Your task to perform on an android device: Clear the shopping cart on amazon. Add razer blackwidow to the cart on amazon Image 0: 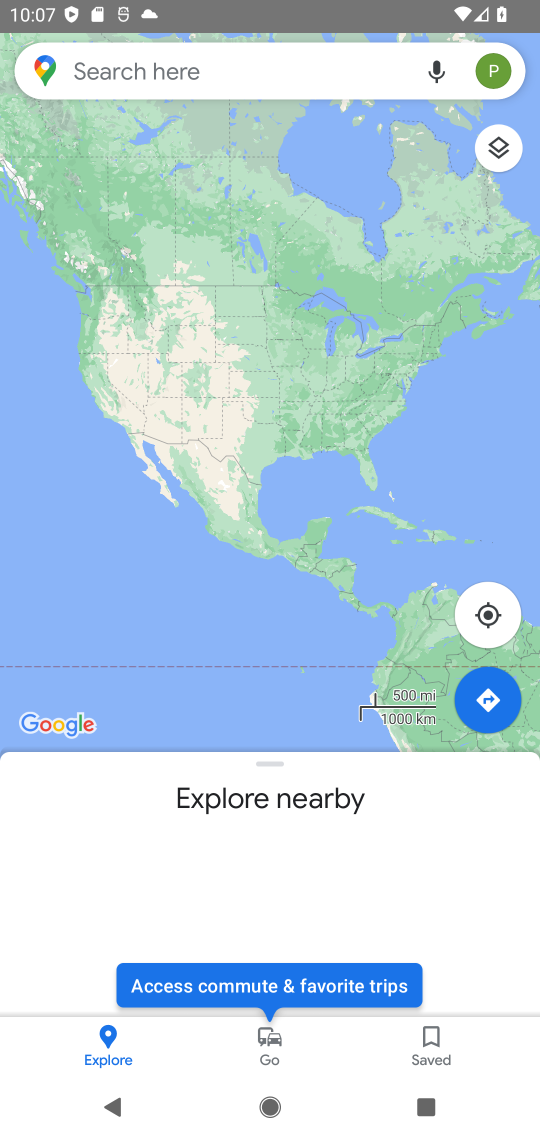
Step 0: press home button
Your task to perform on an android device: Clear the shopping cart on amazon. Add razer blackwidow to the cart on amazon Image 1: 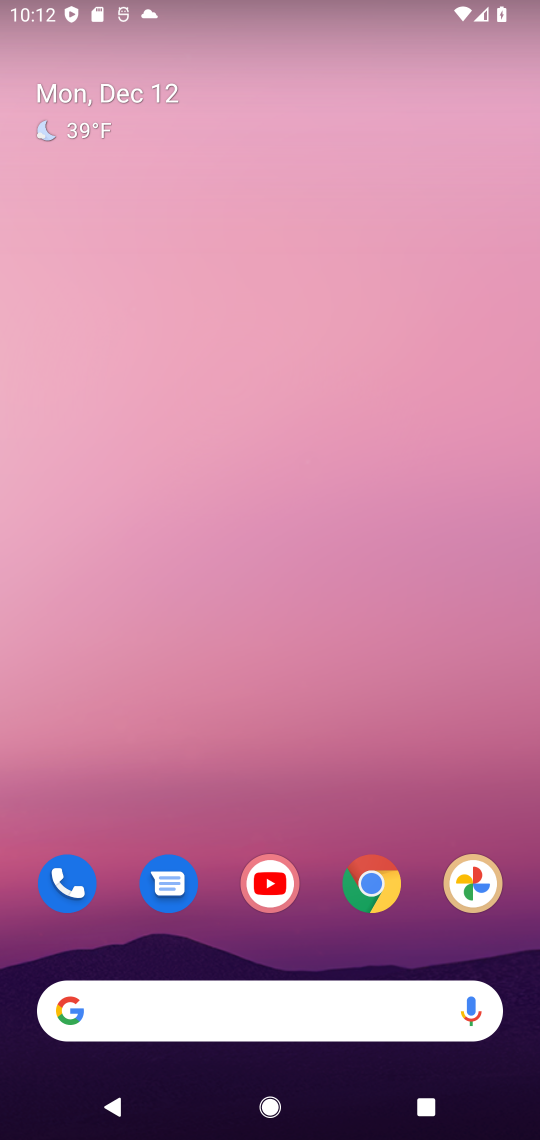
Step 1: click (214, 1002)
Your task to perform on an android device: Clear the shopping cart on amazon. Add razer blackwidow to the cart on amazon Image 2: 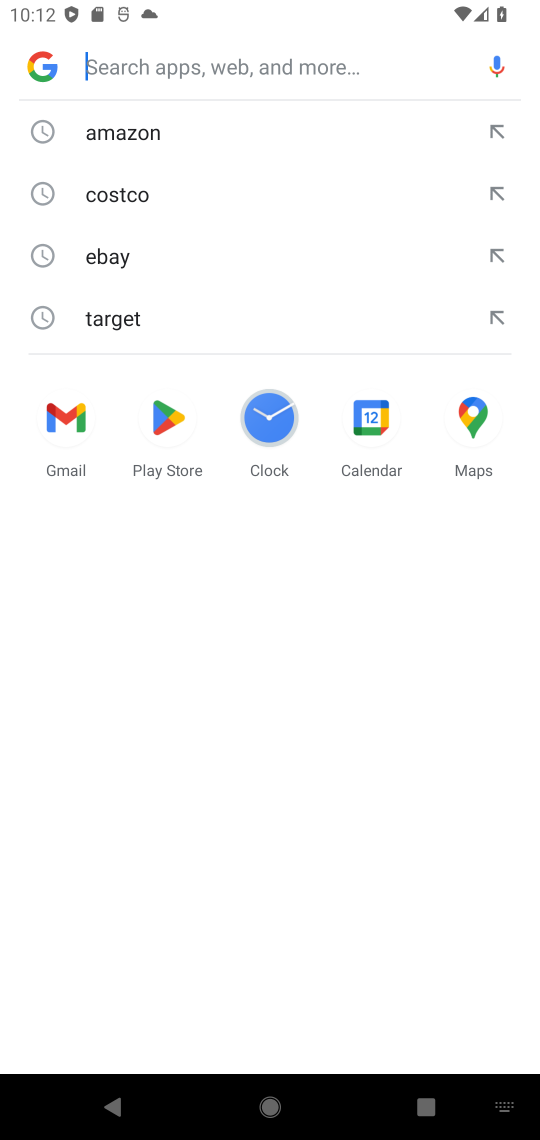
Step 2: click (161, 122)
Your task to perform on an android device: Clear the shopping cart on amazon. Add razer blackwidow to the cart on amazon Image 3: 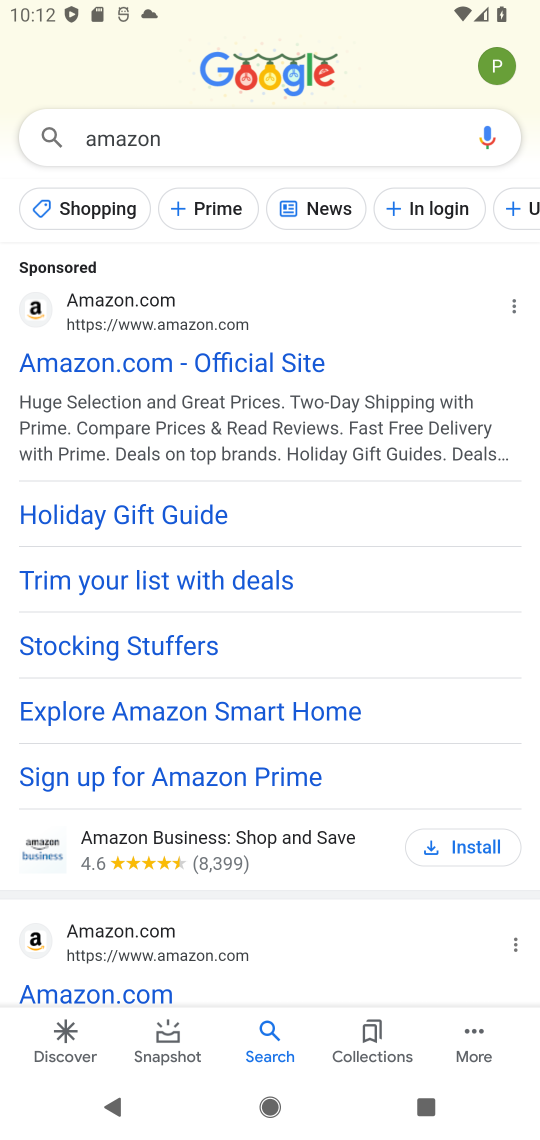
Step 3: click (74, 357)
Your task to perform on an android device: Clear the shopping cart on amazon. Add razer blackwidow to the cart on amazon Image 4: 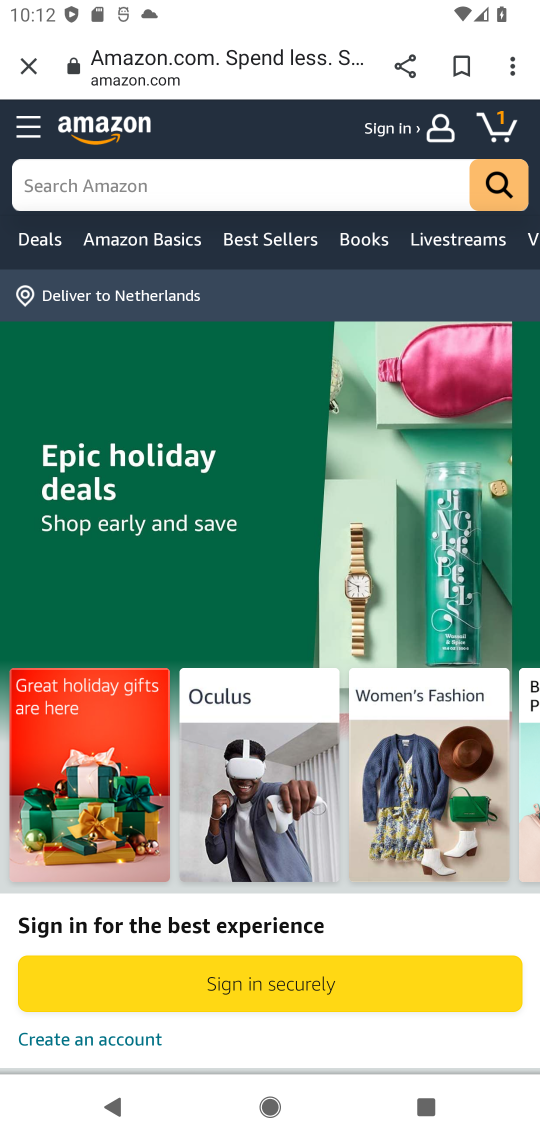
Step 4: click (501, 148)
Your task to perform on an android device: Clear the shopping cart on amazon. Add razer blackwidow to the cart on amazon Image 5: 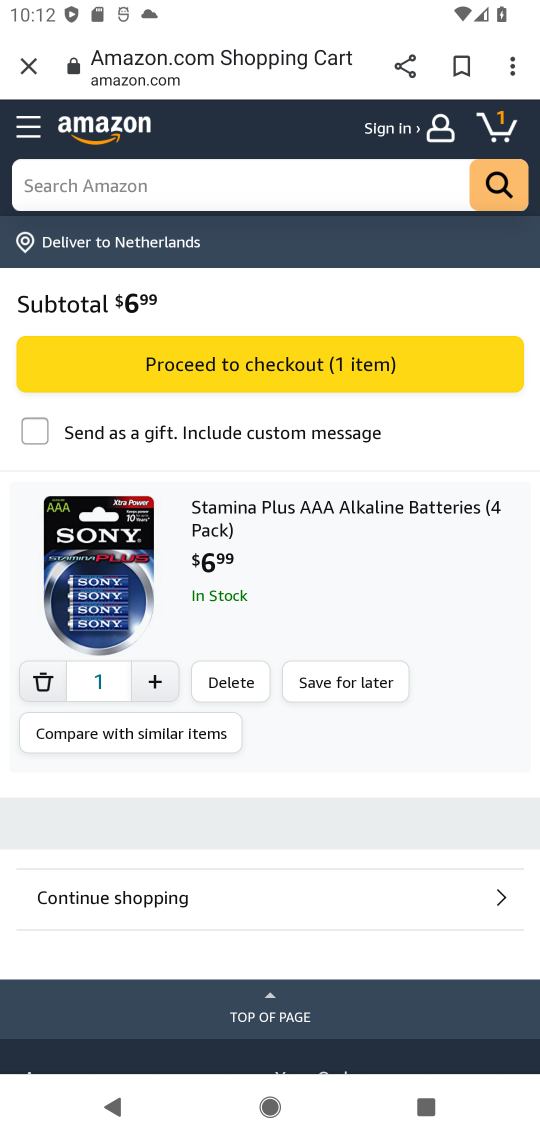
Step 5: click (225, 676)
Your task to perform on an android device: Clear the shopping cart on amazon. Add razer blackwidow to the cart on amazon Image 6: 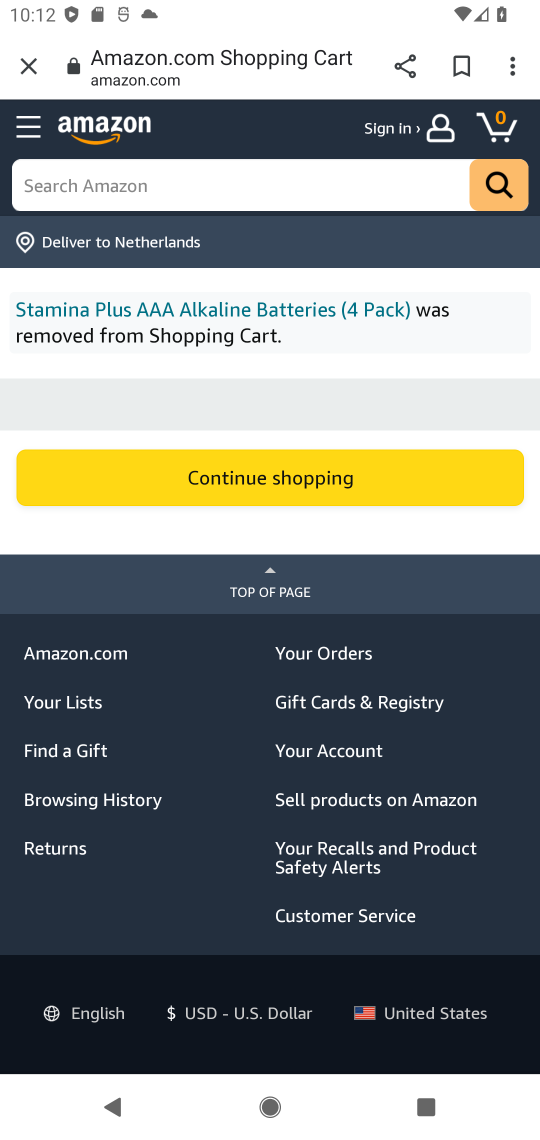
Step 6: click (279, 171)
Your task to perform on an android device: Clear the shopping cart on amazon. Add razer blackwidow to the cart on amazon Image 7: 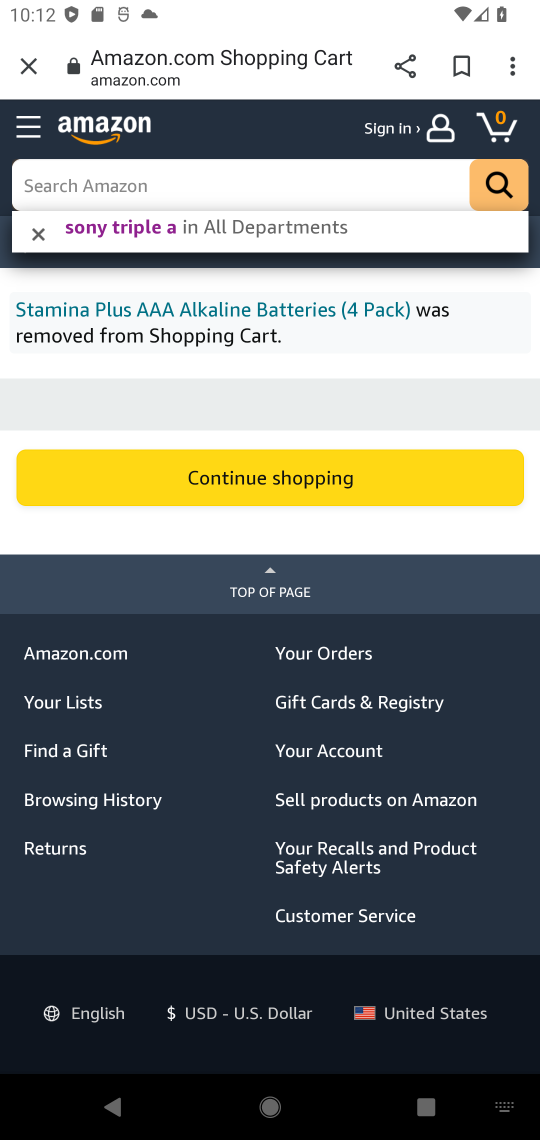
Step 7: type "razer blackwidow "
Your task to perform on an android device: Clear the shopping cart on amazon. Add razer blackwidow to the cart on amazon Image 8: 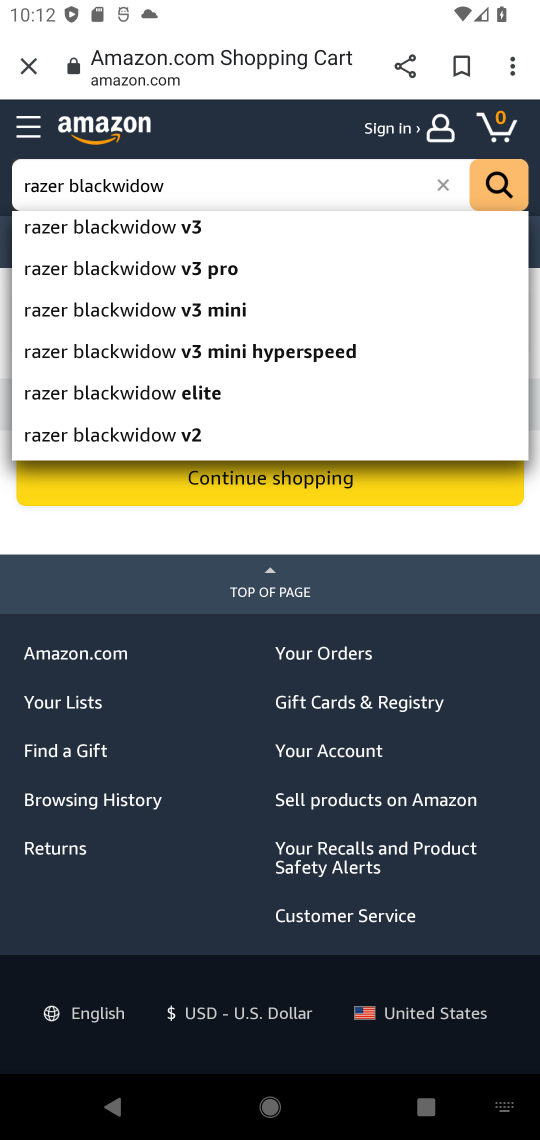
Step 8: click (495, 176)
Your task to perform on an android device: Clear the shopping cart on amazon. Add razer blackwidow to the cart on amazon Image 9: 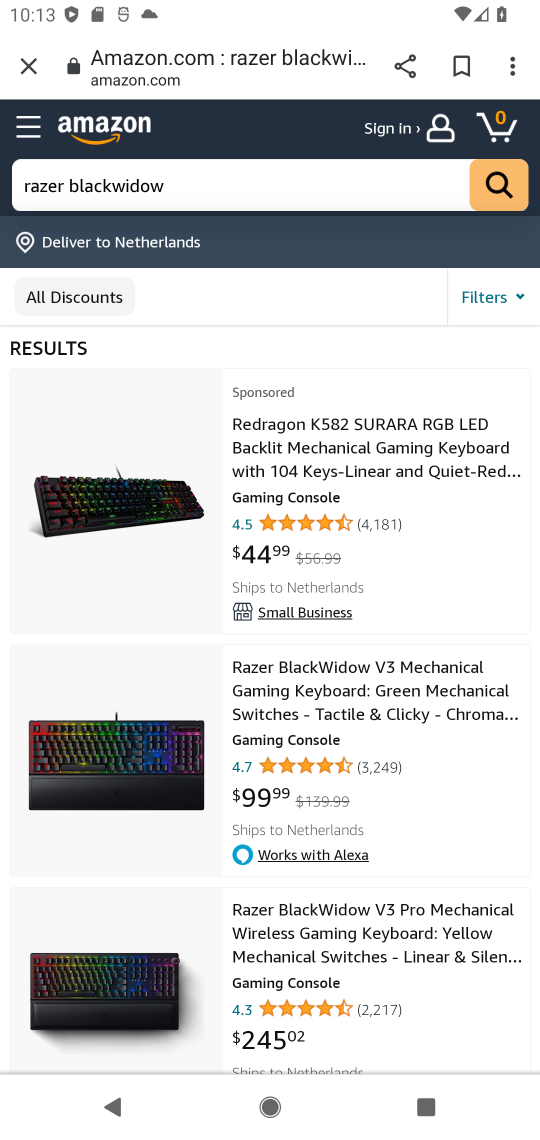
Step 9: click (262, 447)
Your task to perform on an android device: Clear the shopping cart on amazon. Add razer blackwidow to the cart on amazon Image 10: 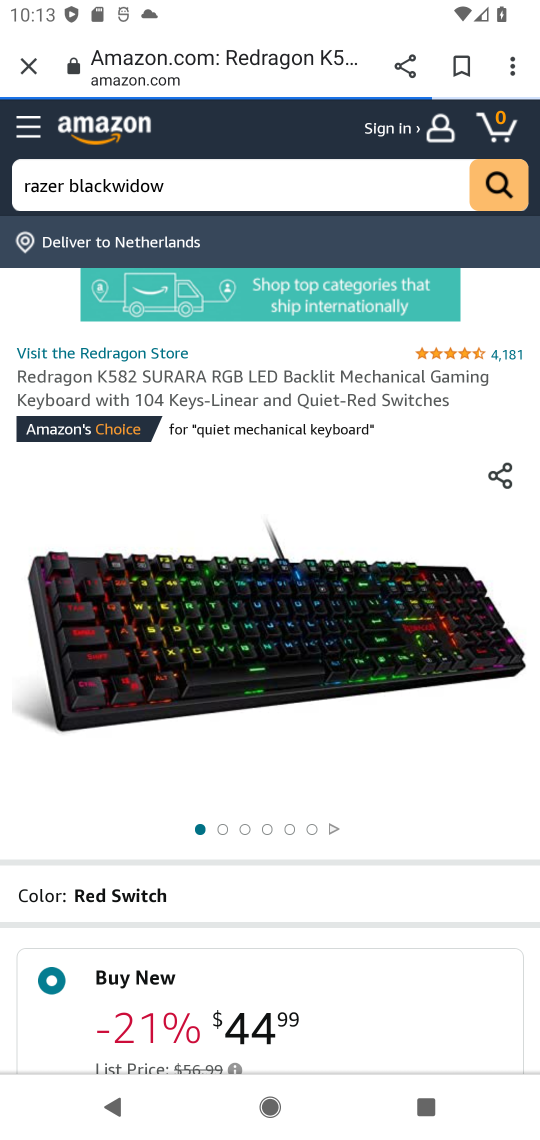
Step 10: click (253, 814)
Your task to perform on an android device: Clear the shopping cart on amazon. Add razer blackwidow to the cart on amazon Image 11: 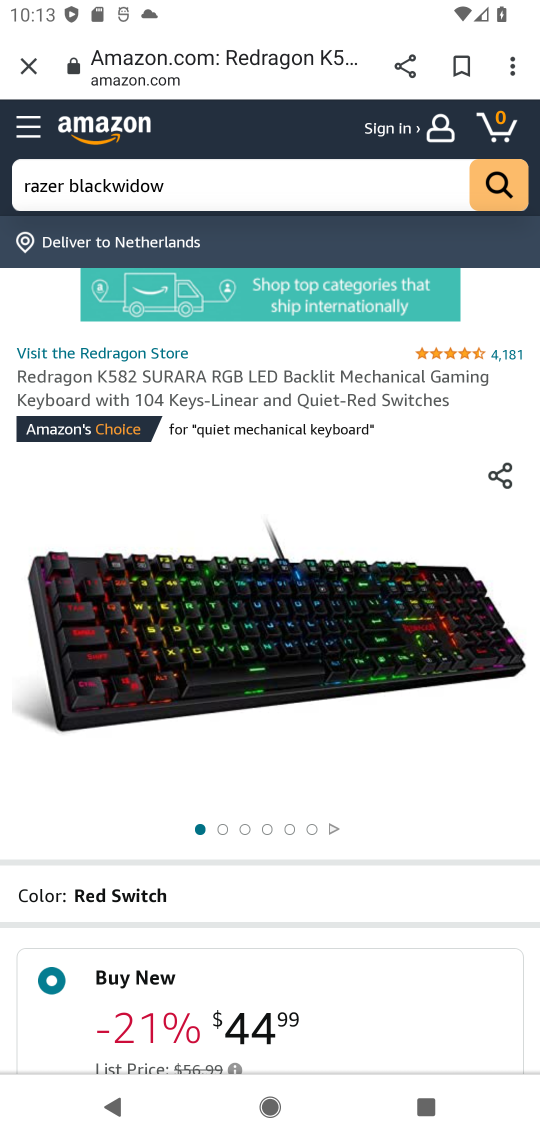
Step 11: drag from (189, 876) to (355, 519)
Your task to perform on an android device: Clear the shopping cart on amazon. Add razer blackwidow to the cart on amazon Image 12: 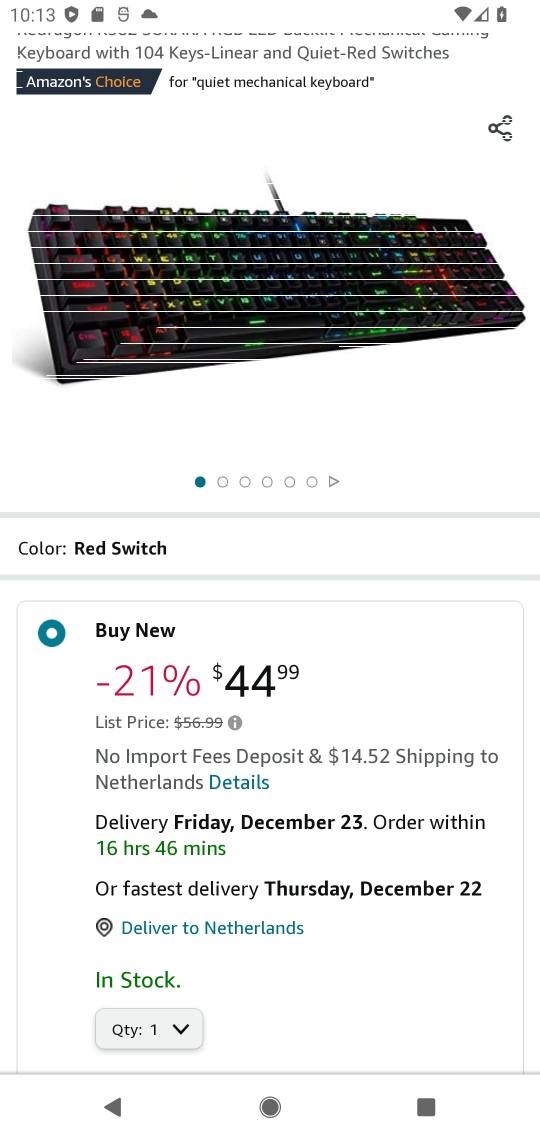
Step 12: drag from (260, 962) to (370, 547)
Your task to perform on an android device: Clear the shopping cart on amazon. Add razer blackwidow to the cart on amazon Image 13: 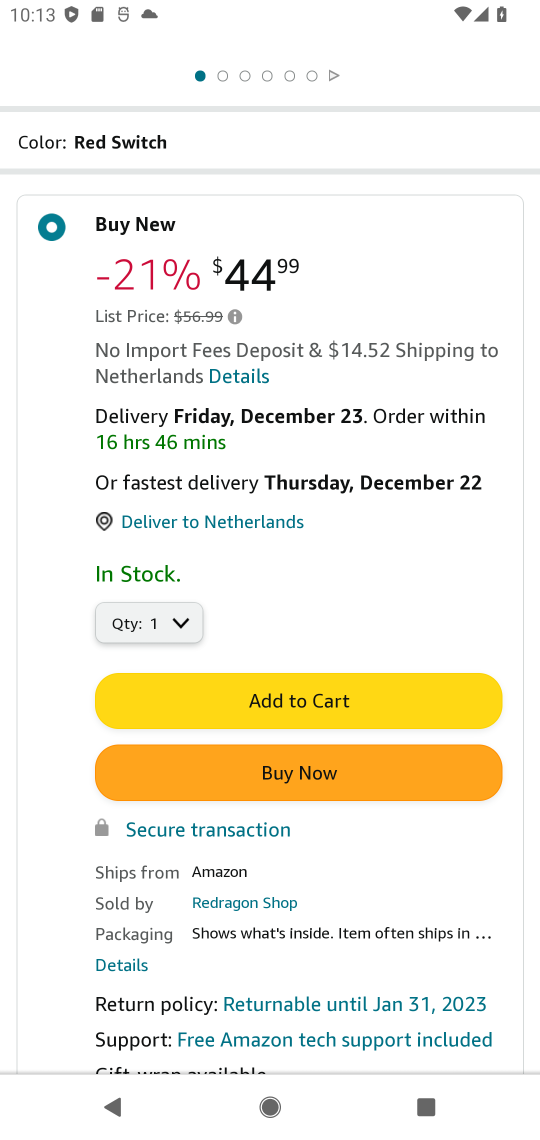
Step 13: click (260, 709)
Your task to perform on an android device: Clear the shopping cart on amazon. Add razer blackwidow to the cart on amazon Image 14: 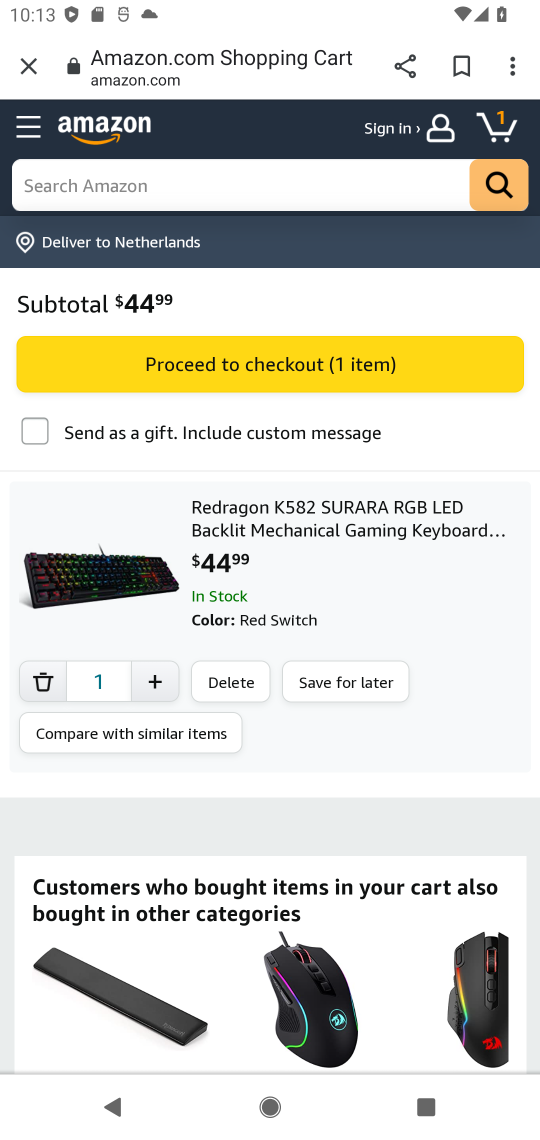
Step 14: task complete